Your task to perform on an android device: visit the assistant section in the google photos Image 0: 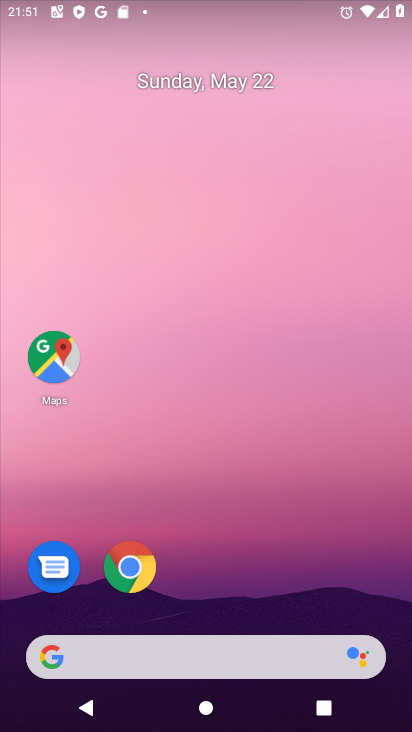
Step 0: drag from (224, 595) to (297, 15)
Your task to perform on an android device: visit the assistant section in the google photos Image 1: 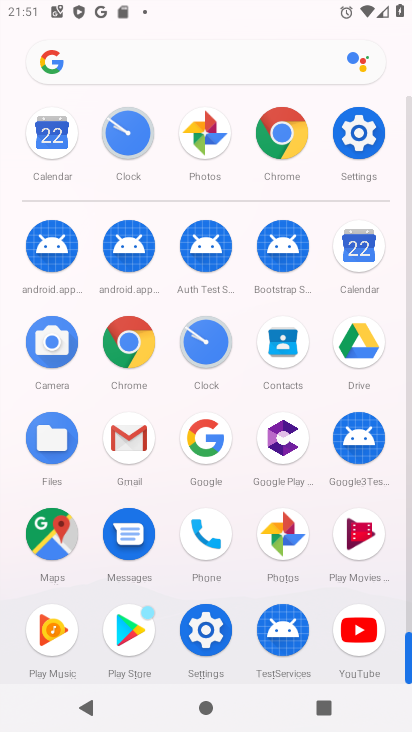
Step 1: click (279, 526)
Your task to perform on an android device: visit the assistant section in the google photos Image 2: 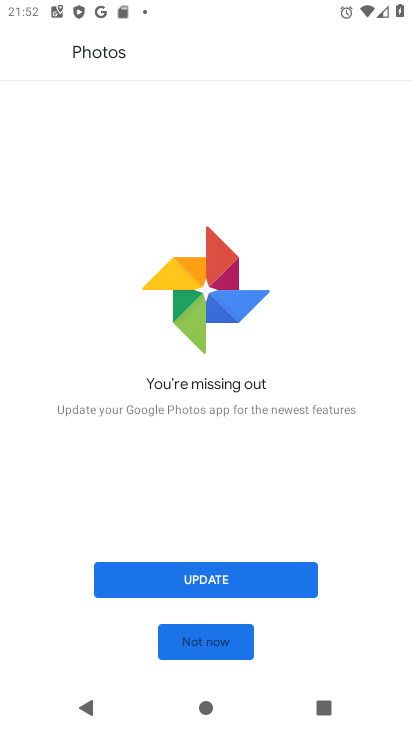
Step 2: click (215, 640)
Your task to perform on an android device: visit the assistant section in the google photos Image 3: 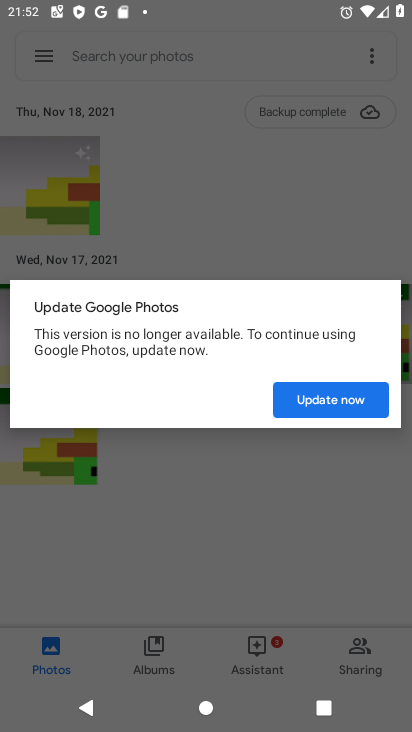
Step 3: click (311, 383)
Your task to perform on an android device: visit the assistant section in the google photos Image 4: 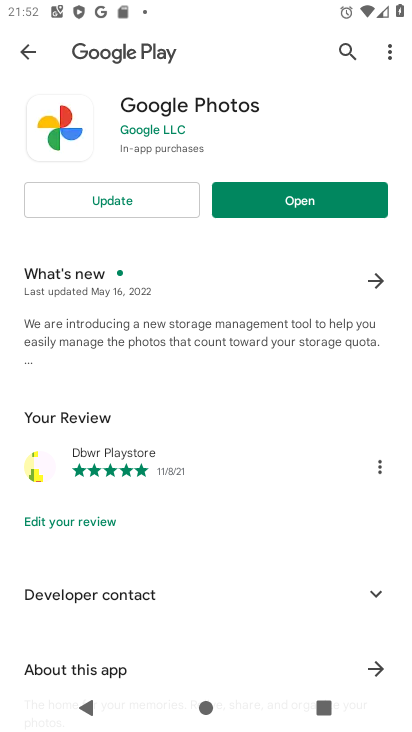
Step 4: click (238, 204)
Your task to perform on an android device: visit the assistant section in the google photos Image 5: 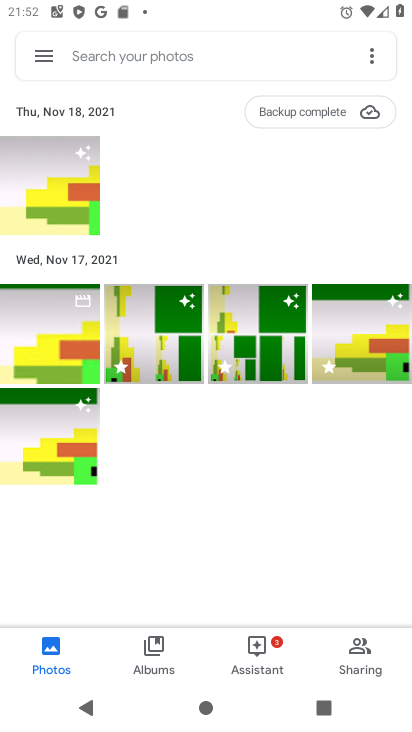
Step 5: click (265, 651)
Your task to perform on an android device: visit the assistant section in the google photos Image 6: 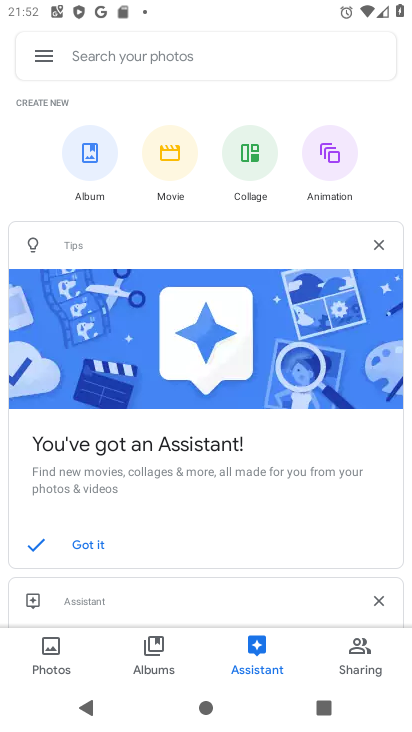
Step 6: task complete